Your task to perform on an android device: Go to Yahoo.com Image 0: 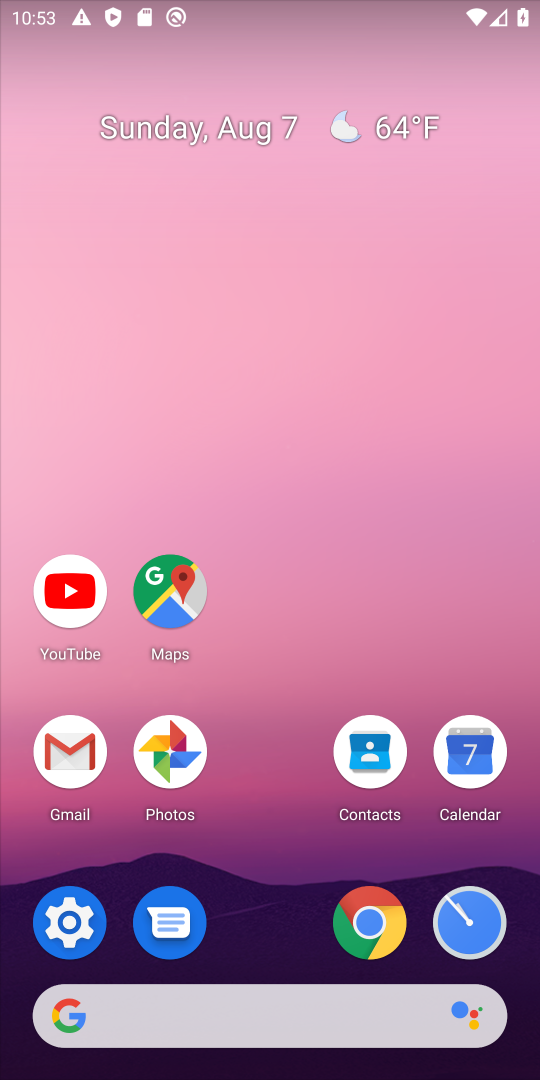
Step 0: click (374, 926)
Your task to perform on an android device: Go to Yahoo.com Image 1: 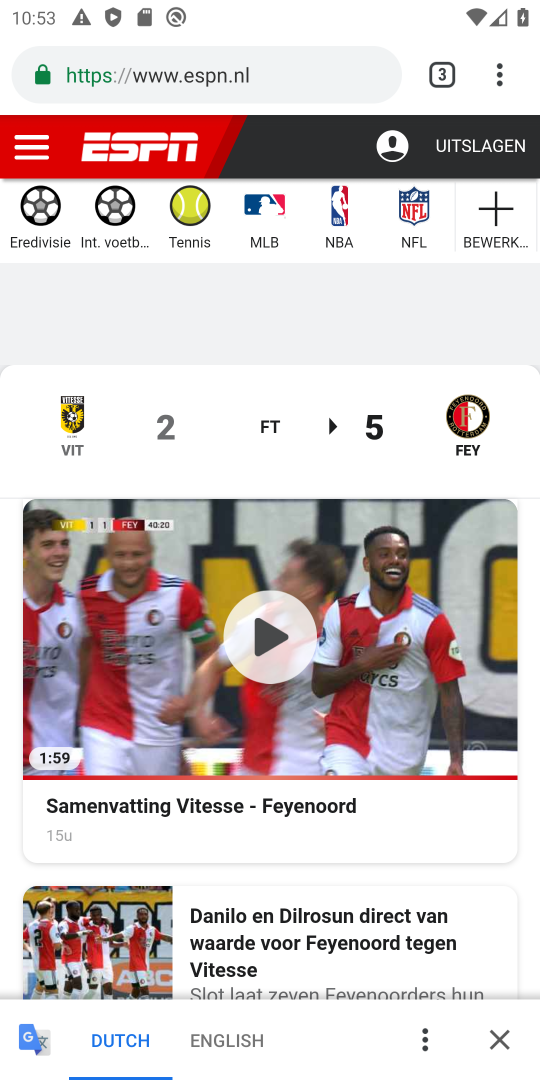
Step 1: click (480, 258)
Your task to perform on an android device: Go to Yahoo.com Image 2: 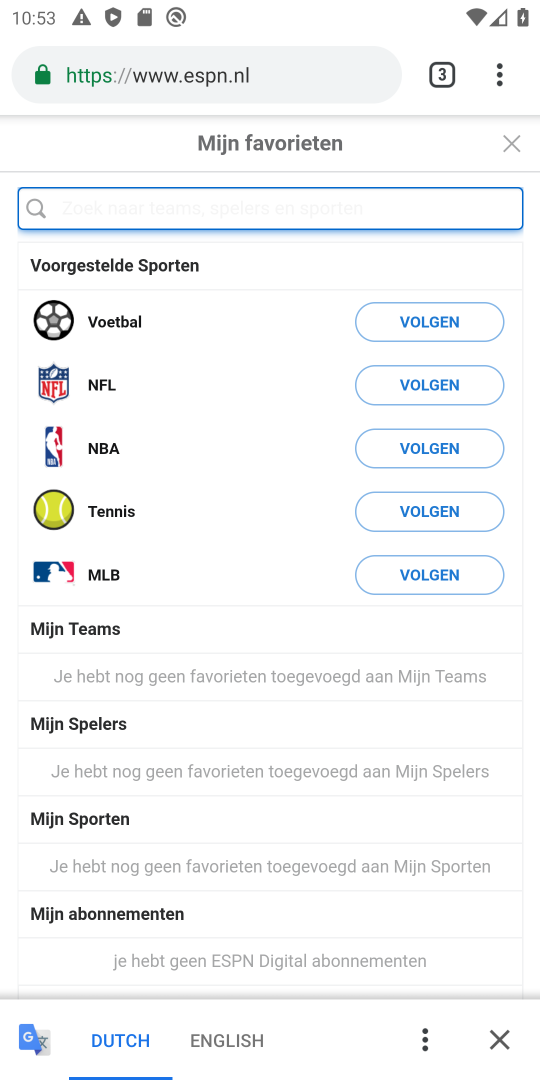
Step 2: click (492, 61)
Your task to perform on an android device: Go to Yahoo.com Image 3: 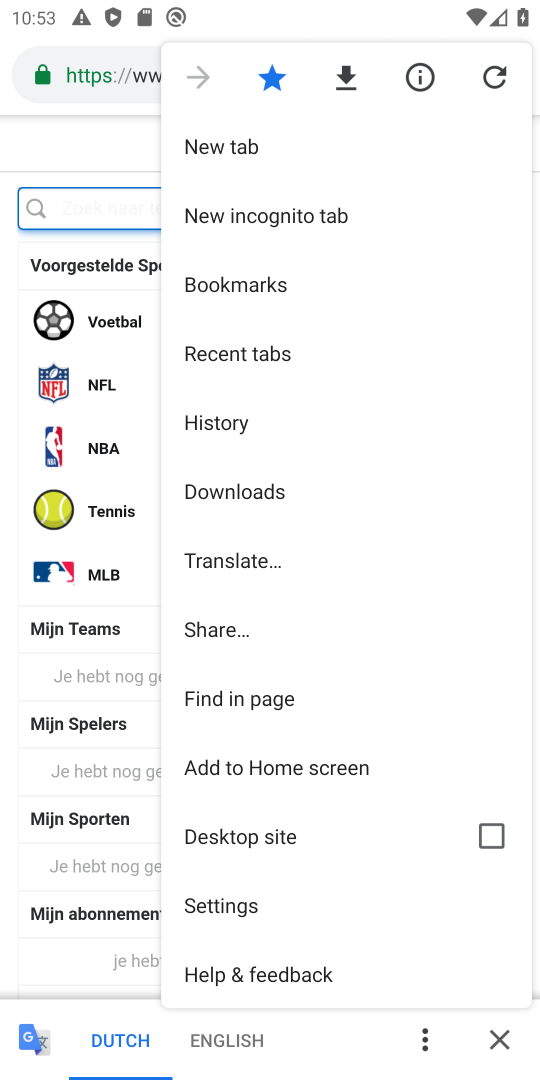
Step 3: click (237, 147)
Your task to perform on an android device: Go to Yahoo.com Image 4: 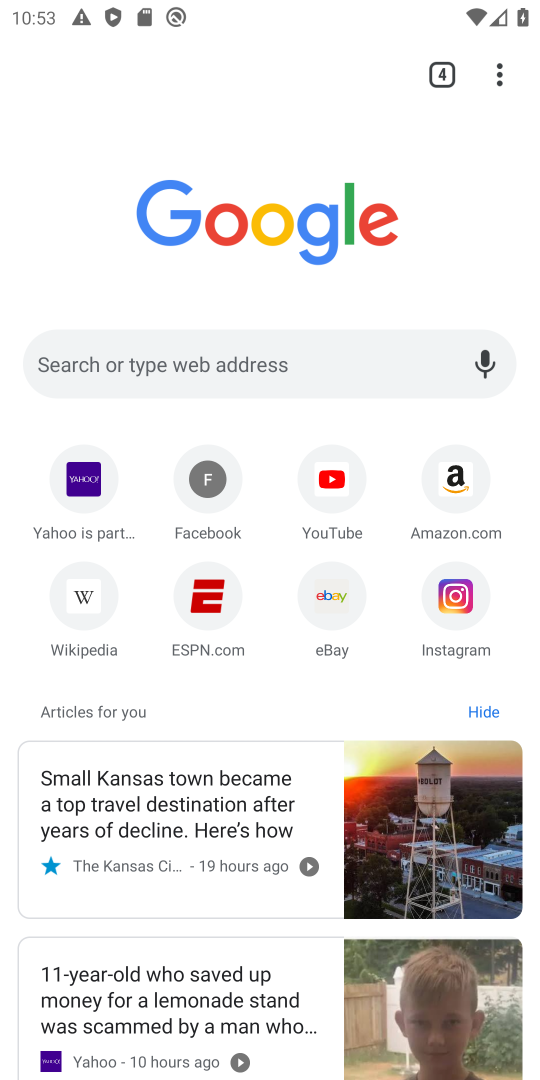
Step 4: click (78, 488)
Your task to perform on an android device: Go to Yahoo.com Image 5: 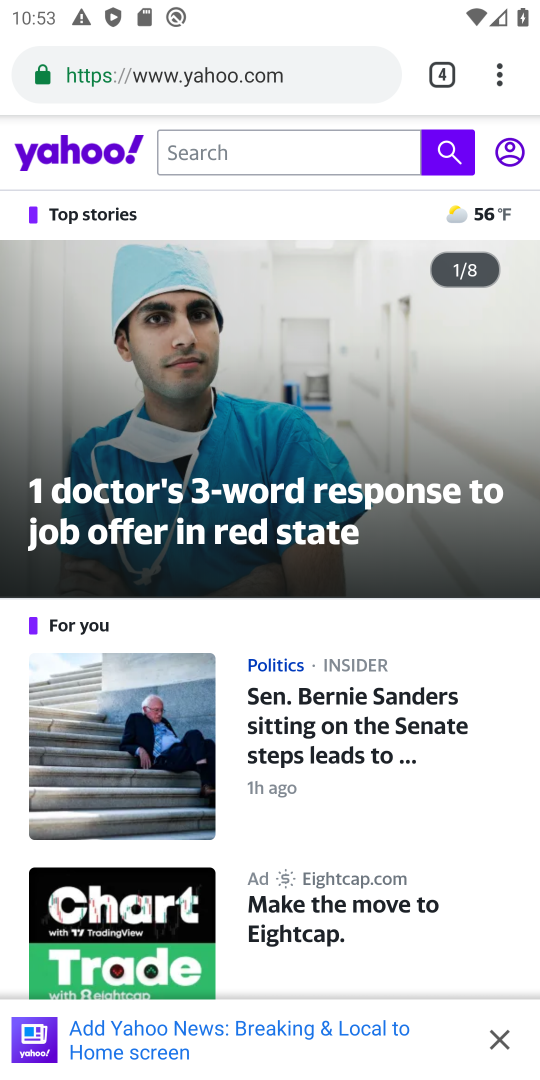
Step 5: task complete